Your task to perform on an android device: Open network settings Image 0: 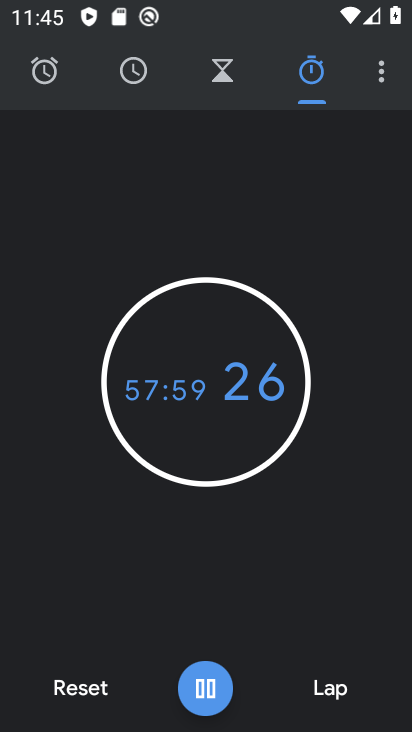
Step 0: press home button
Your task to perform on an android device: Open network settings Image 1: 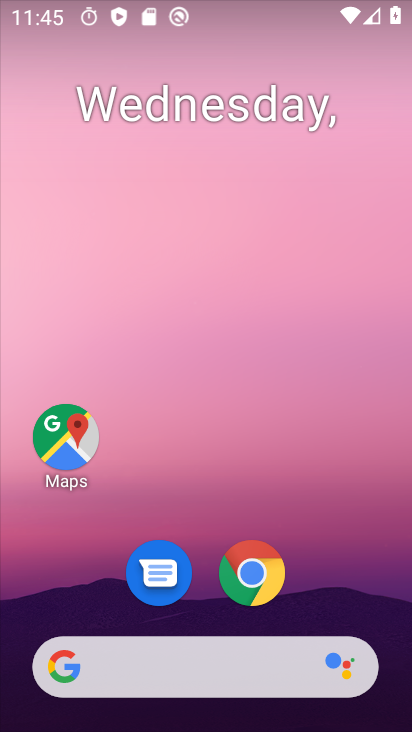
Step 1: drag from (355, 516) to (341, 206)
Your task to perform on an android device: Open network settings Image 2: 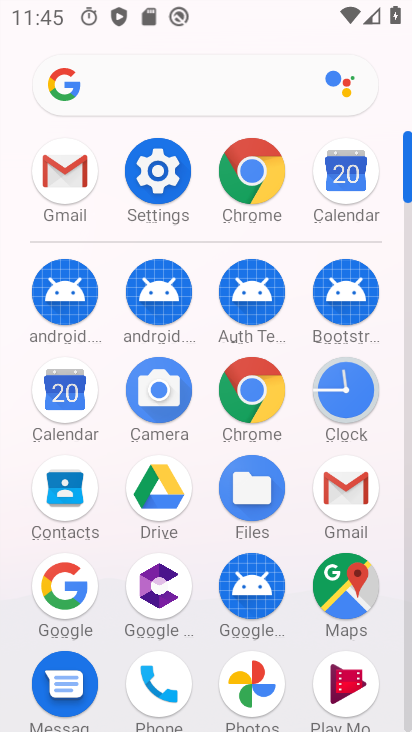
Step 2: click (152, 153)
Your task to perform on an android device: Open network settings Image 3: 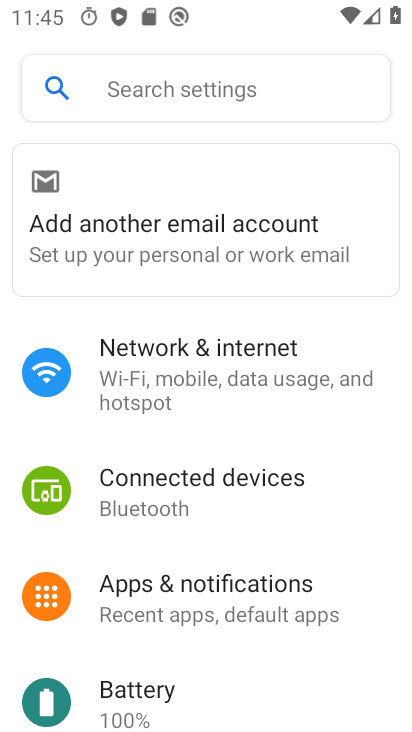
Step 3: click (153, 369)
Your task to perform on an android device: Open network settings Image 4: 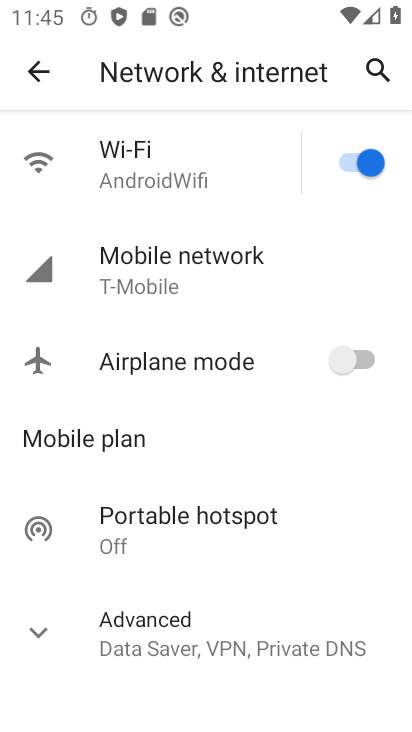
Step 4: drag from (265, 595) to (268, 232)
Your task to perform on an android device: Open network settings Image 5: 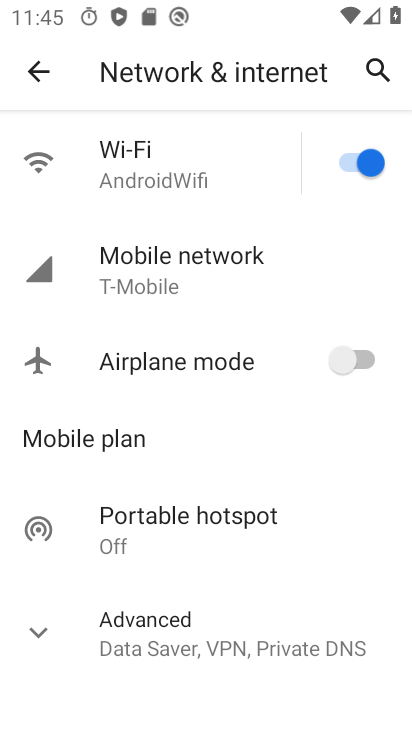
Step 5: click (130, 271)
Your task to perform on an android device: Open network settings Image 6: 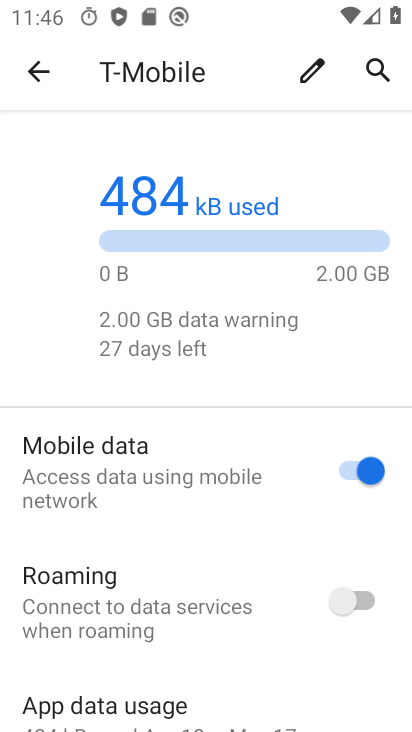
Step 6: task complete